Your task to perform on an android device: Go to Reddit.com Image 0: 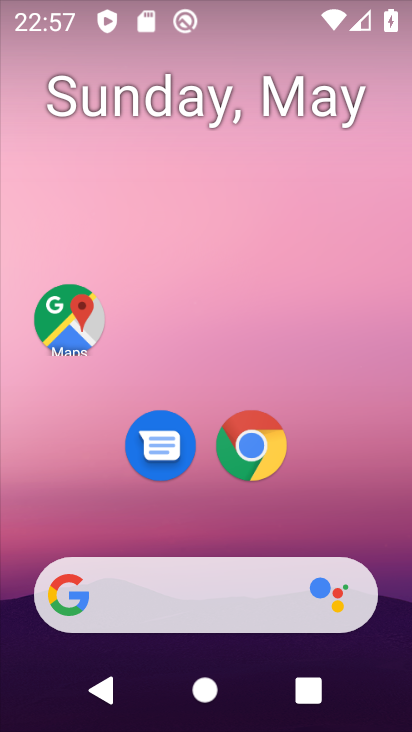
Step 0: click (246, 435)
Your task to perform on an android device: Go to Reddit.com Image 1: 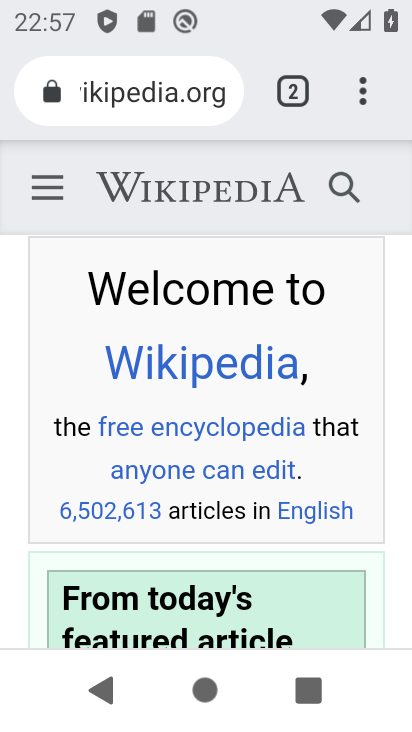
Step 1: click (170, 84)
Your task to perform on an android device: Go to Reddit.com Image 2: 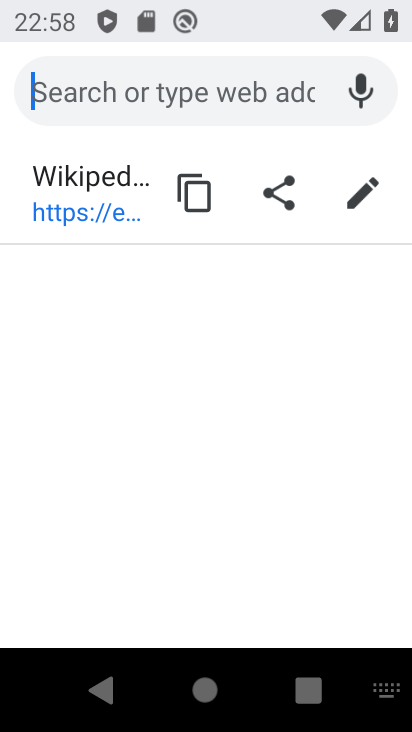
Step 2: type " Reddit.com"
Your task to perform on an android device: Go to Reddit.com Image 3: 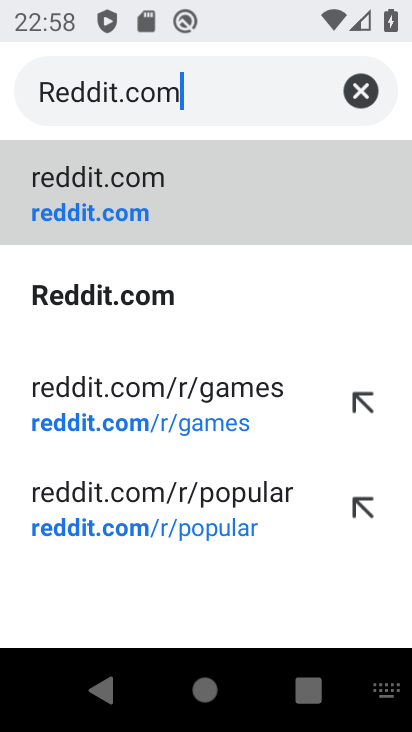
Step 3: click (87, 209)
Your task to perform on an android device: Go to Reddit.com Image 4: 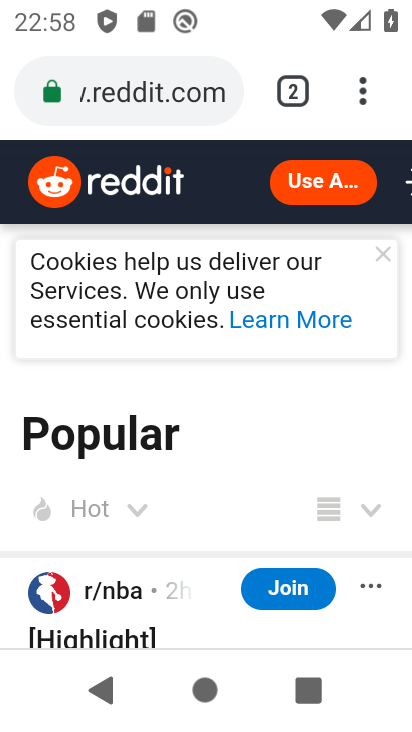
Step 4: task complete